Your task to perform on an android device: Search for seafood restaurants on Google Maps Image 0: 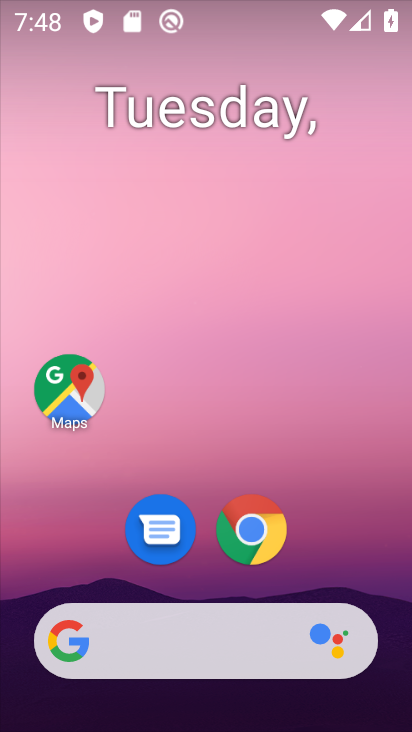
Step 0: drag from (200, 632) to (207, 128)
Your task to perform on an android device: Search for seafood restaurants on Google Maps Image 1: 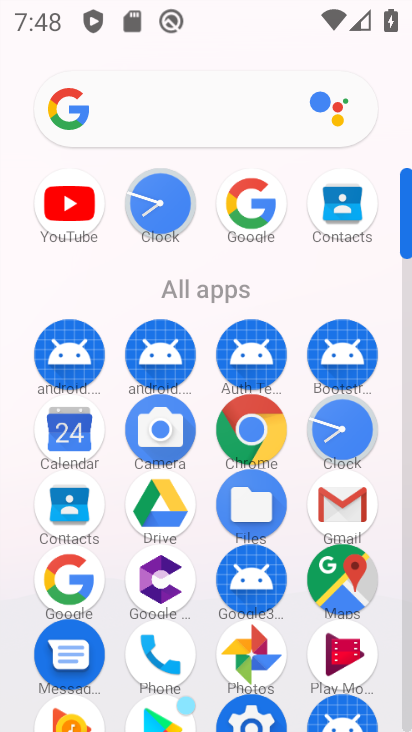
Step 1: drag from (238, 567) to (277, 242)
Your task to perform on an android device: Search for seafood restaurants on Google Maps Image 2: 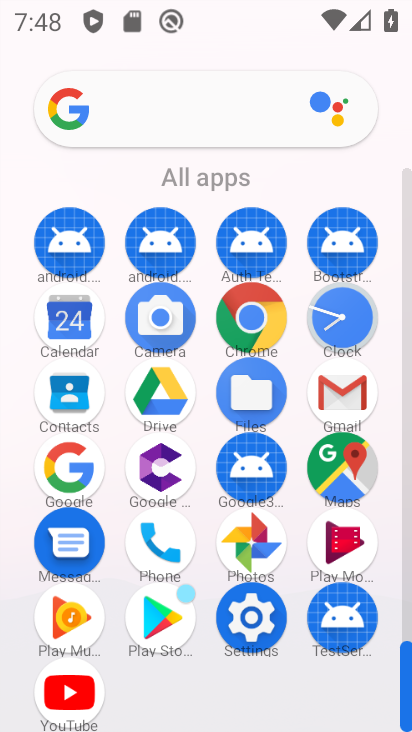
Step 2: click (356, 475)
Your task to perform on an android device: Search for seafood restaurants on Google Maps Image 3: 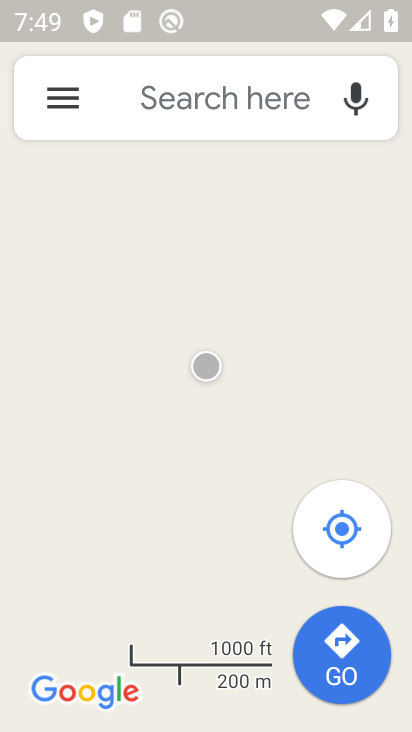
Step 3: click (212, 98)
Your task to perform on an android device: Search for seafood restaurants on Google Maps Image 4: 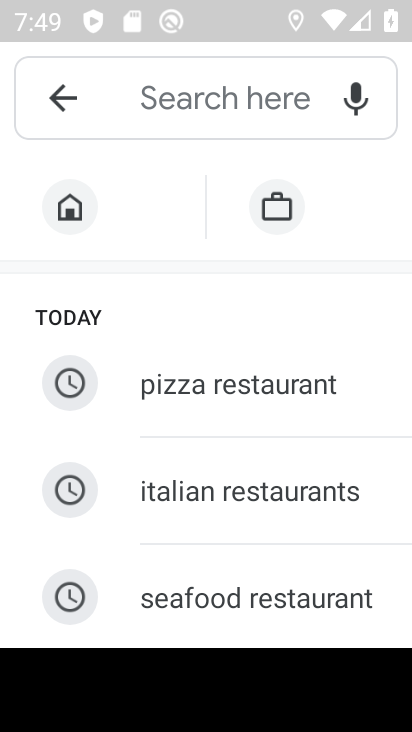
Step 4: type "seafood restaurants"
Your task to perform on an android device: Search for seafood restaurants on Google Maps Image 5: 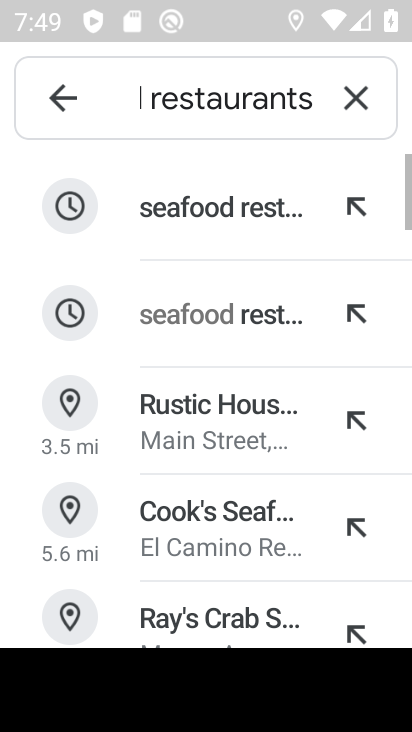
Step 5: click (235, 209)
Your task to perform on an android device: Search for seafood restaurants on Google Maps Image 6: 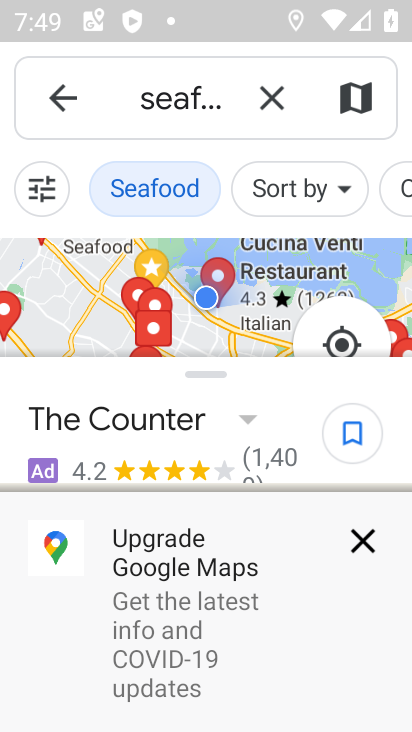
Step 6: task complete